Your task to perform on an android device: Go to internet settings Image 0: 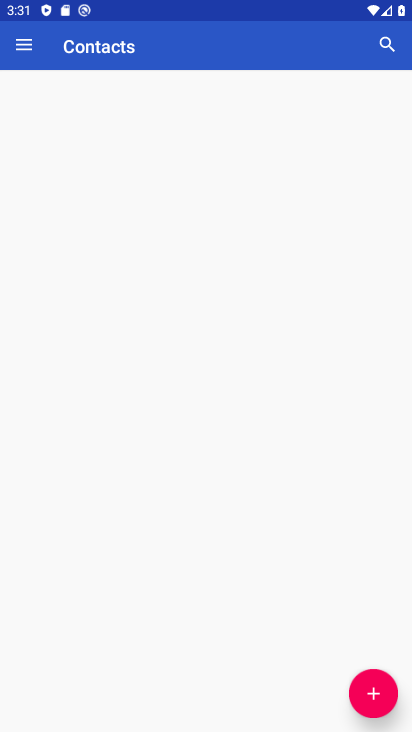
Step 0: drag from (289, 613) to (341, 183)
Your task to perform on an android device: Go to internet settings Image 1: 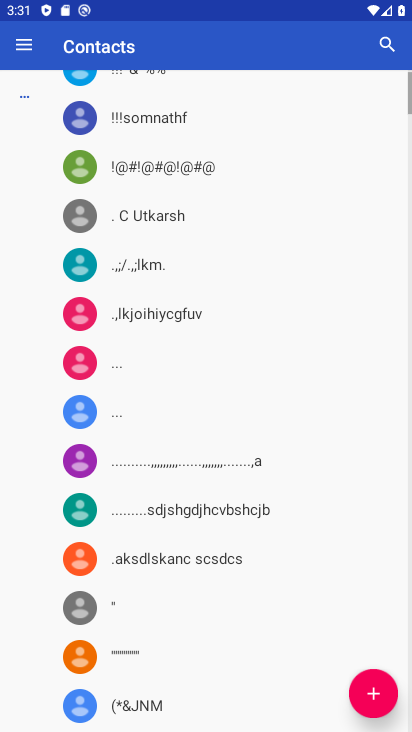
Step 1: press home button
Your task to perform on an android device: Go to internet settings Image 2: 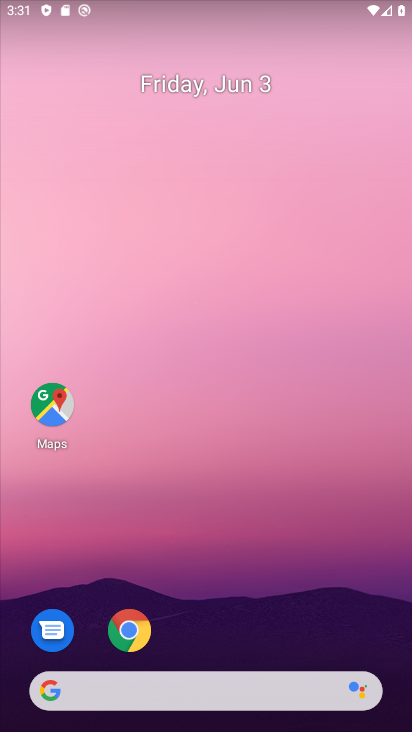
Step 2: drag from (223, 626) to (294, 49)
Your task to perform on an android device: Go to internet settings Image 3: 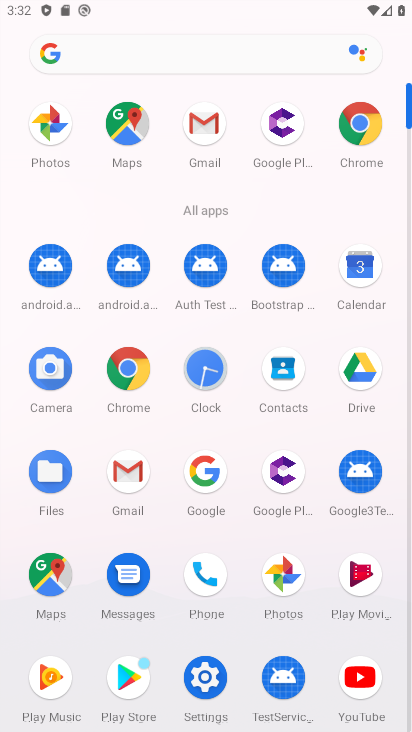
Step 3: click (204, 681)
Your task to perform on an android device: Go to internet settings Image 4: 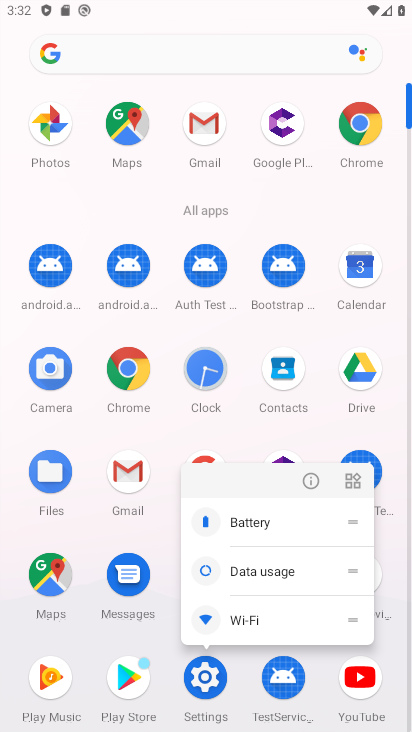
Step 4: click (203, 669)
Your task to perform on an android device: Go to internet settings Image 5: 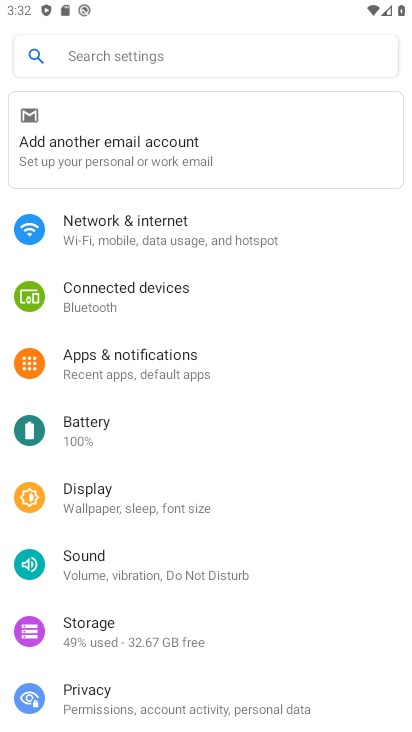
Step 5: click (146, 225)
Your task to perform on an android device: Go to internet settings Image 6: 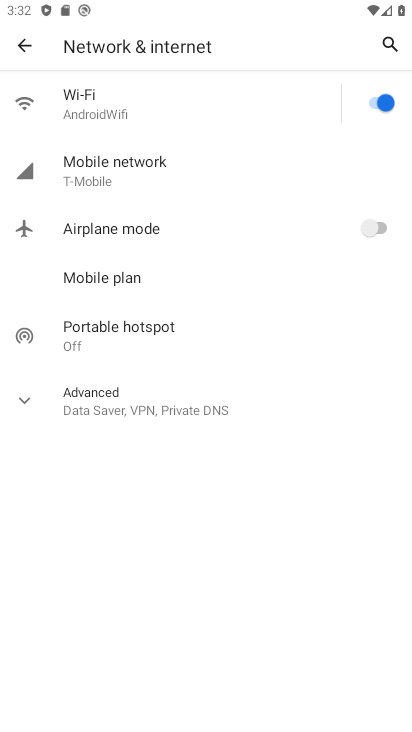
Step 6: task complete